Your task to perform on an android device: Open the map Image 0: 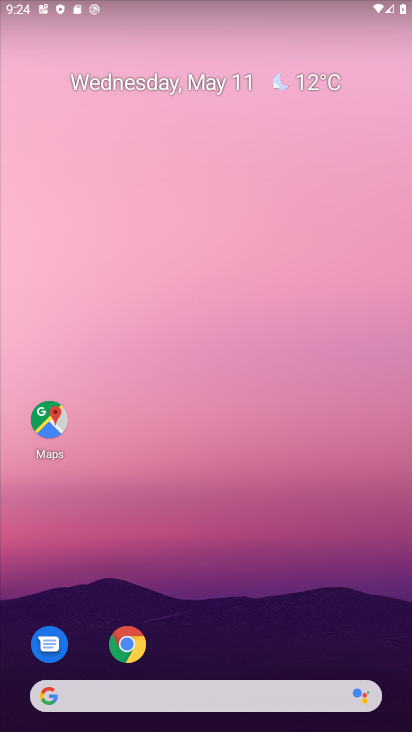
Step 0: click (51, 429)
Your task to perform on an android device: Open the map Image 1: 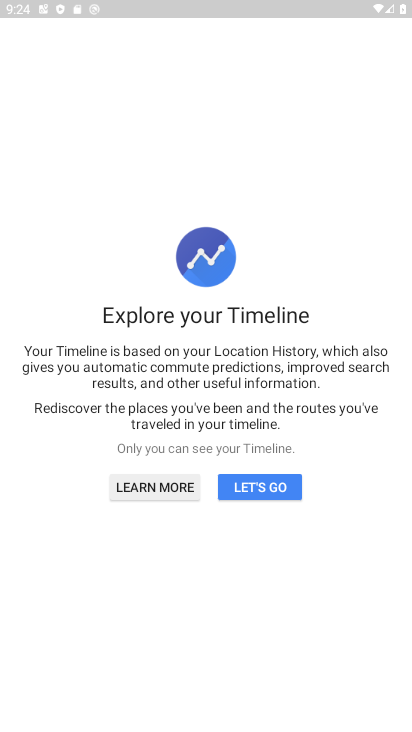
Step 1: task complete